Your task to perform on an android device: change the clock style Image 0: 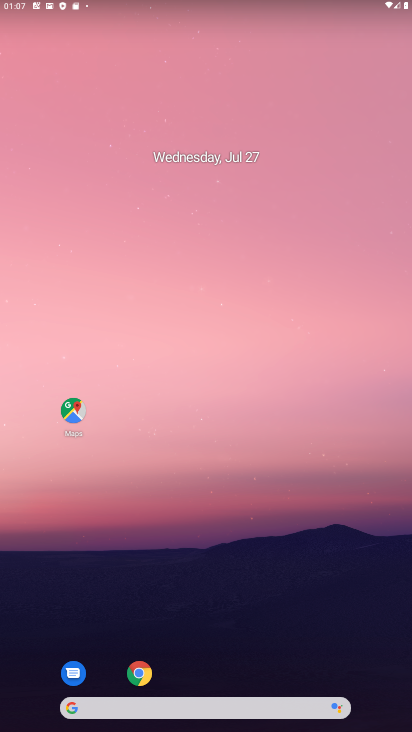
Step 0: drag from (219, 654) to (236, 205)
Your task to perform on an android device: change the clock style Image 1: 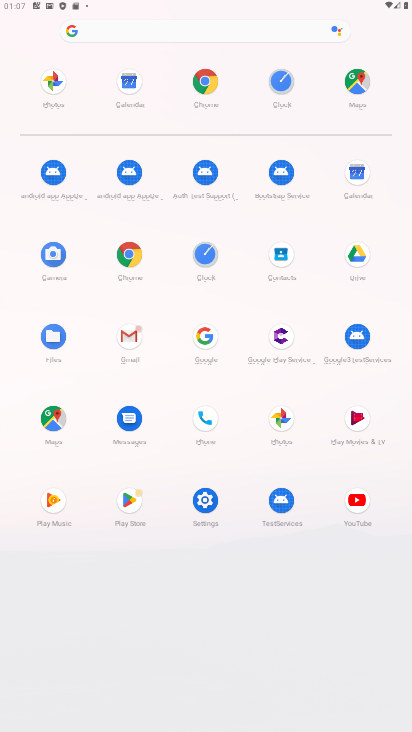
Step 1: click (212, 245)
Your task to perform on an android device: change the clock style Image 2: 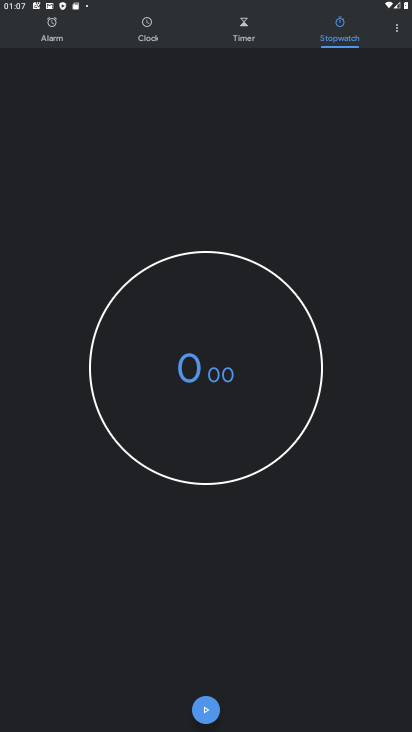
Step 2: click (404, 27)
Your task to perform on an android device: change the clock style Image 3: 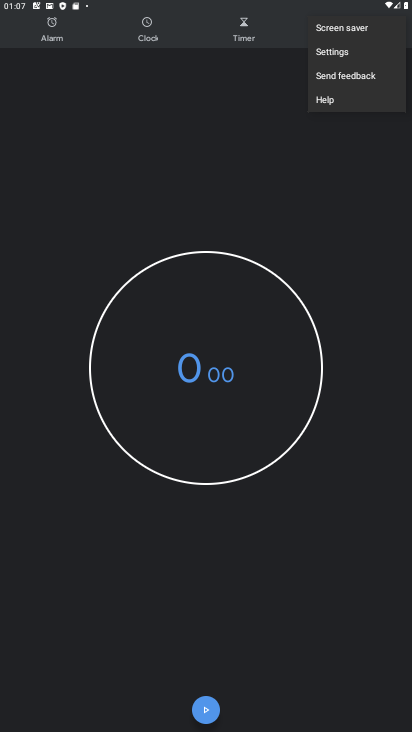
Step 3: click (343, 49)
Your task to perform on an android device: change the clock style Image 4: 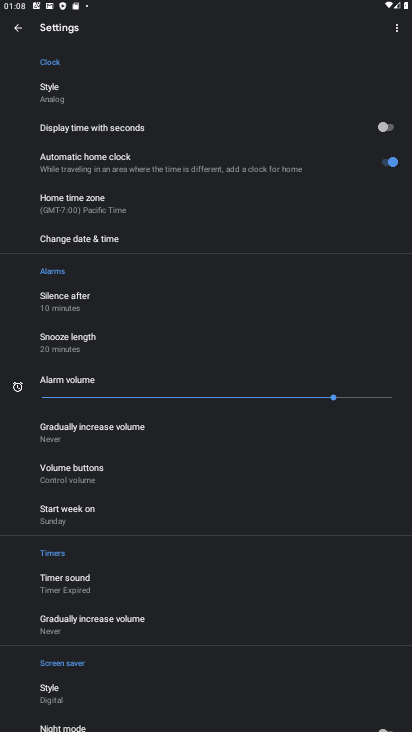
Step 4: click (66, 94)
Your task to perform on an android device: change the clock style Image 5: 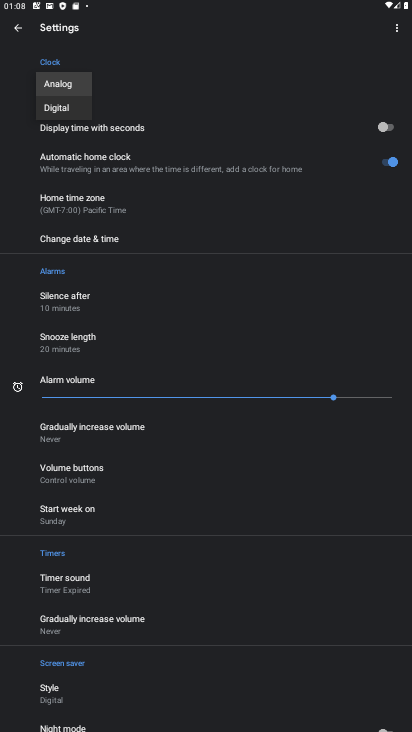
Step 5: click (66, 109)
Your task to perform on an android device: change the clock style Image 6: 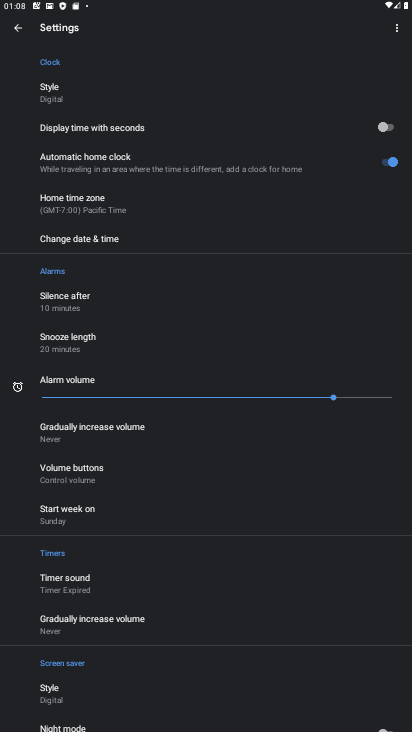
Step 6: task complete